Your task to perform on an android device: check out phone information Image 0: 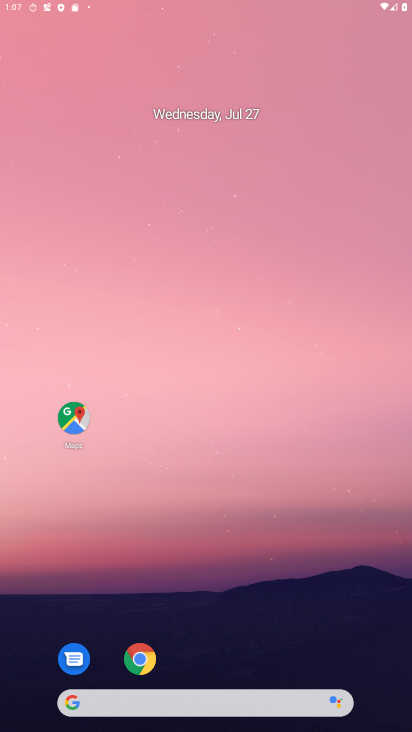
Step 0: press home button
Your task to perform on an android device: check out phone information Image 1: 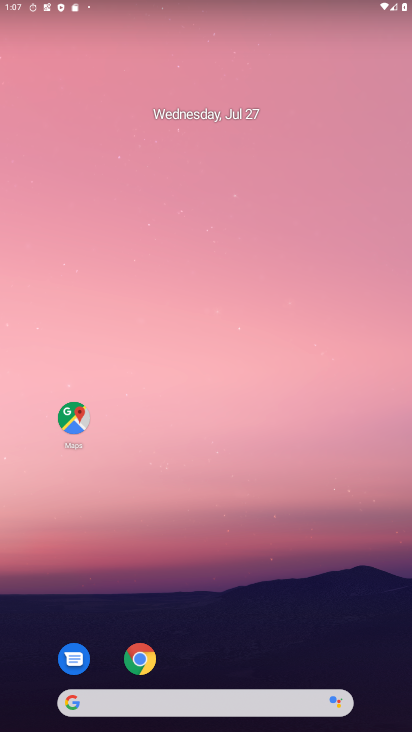
Step 1: drag from (248, 658) to (200, 28)
Your task to perform on an android device: check out phone information Image 2: 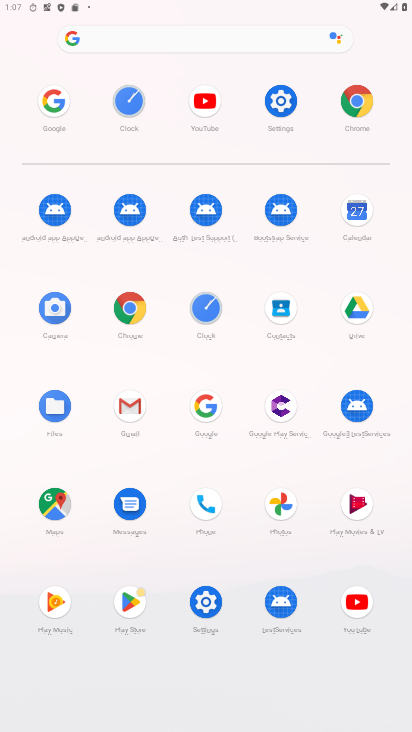
Step 2: click (204, 598)
Your task to perform on an android device: check out phone information Image 3: 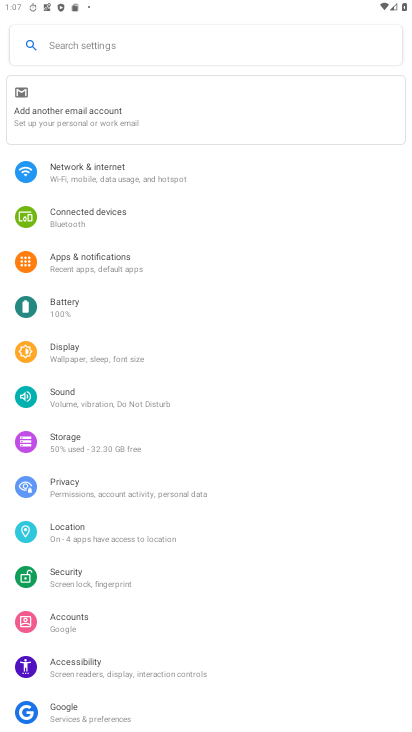
Step 3: drag from (167, 698) to (163, 130)
Your task to perform on an android device: check out phone information Image 4: 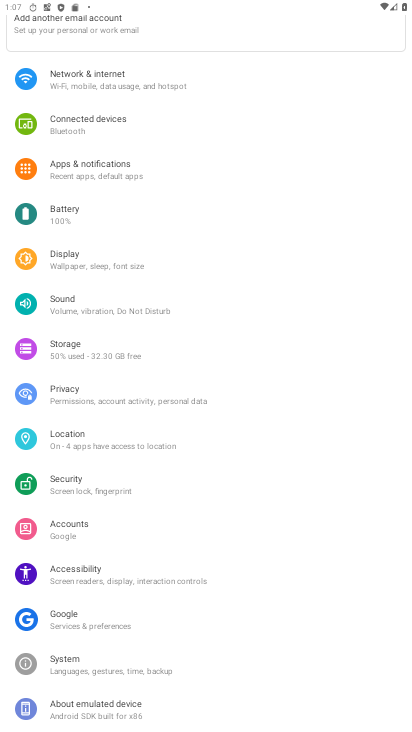
Step 4: click (129, 711)
Your task to perform on an android device: check out phone information Image 5: 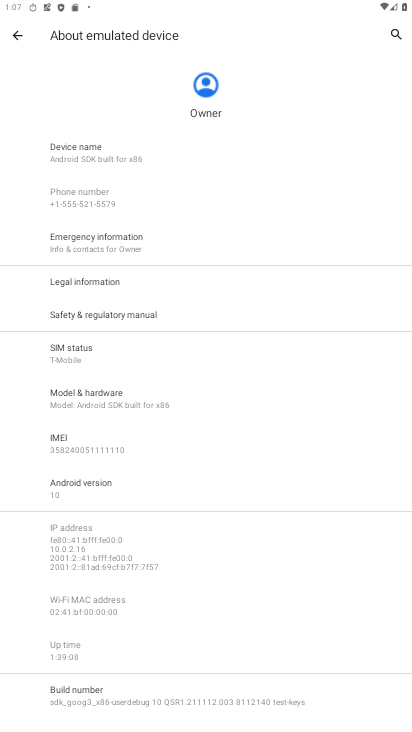
Step 5: task complete